Your task to perform on an android device: Open calendar and show me the fourth week of next month Image 0: 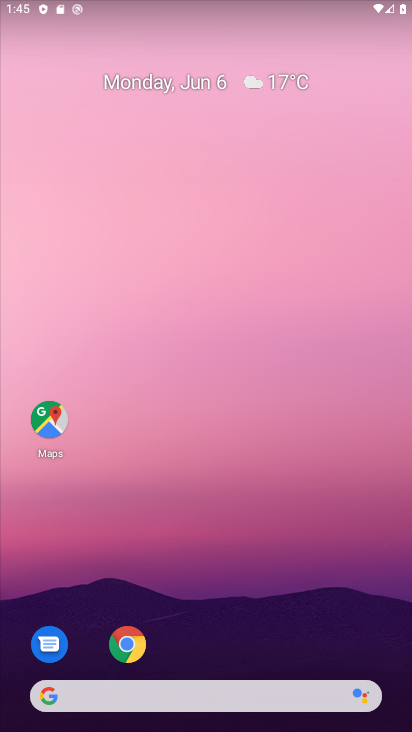
Step 0: drag from (150, 648) to (86, 37)
Your task to perform on an android device: Open calendar and show me the fourth week of next month Image 1: 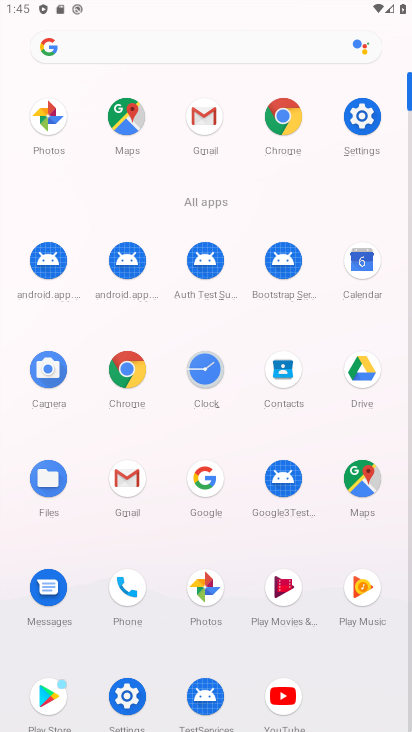
Step 1: click (361, 266)
Your task to perform on an android device: Open calendar and show me the fourth week of next month Image 2: 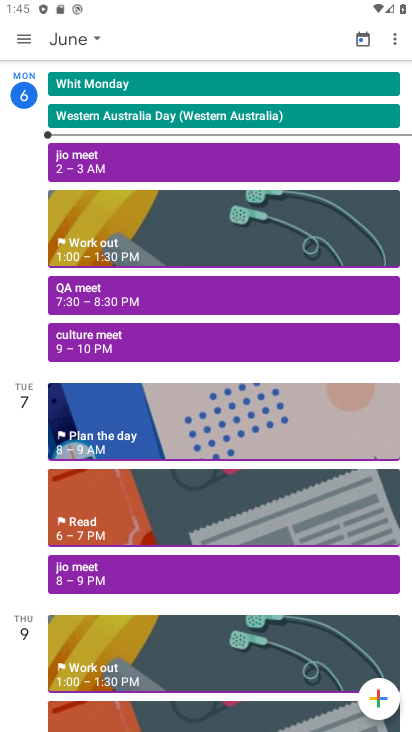
Step 2: click (87, 42)
Your task to perform on an android device: Open calendar and show me the fourth week of next month Image 3: 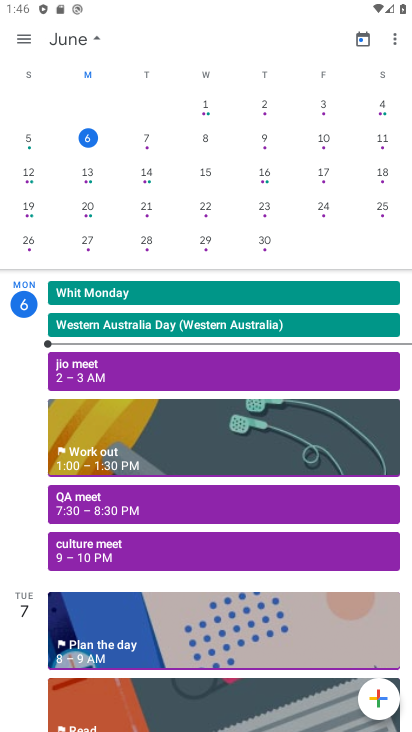
Step 3: drag from (386, 236) to (9, 224)
Your task to perform on an android device: Open calendar and show me the fourth week of next month Image 4: 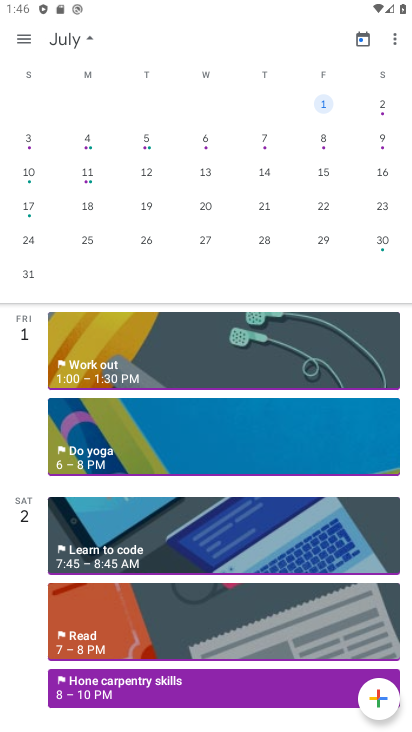
Step 4: click (85, 38)
Your task to perform on an android device: Open calendar and show me the fourth week of next month Image 5: 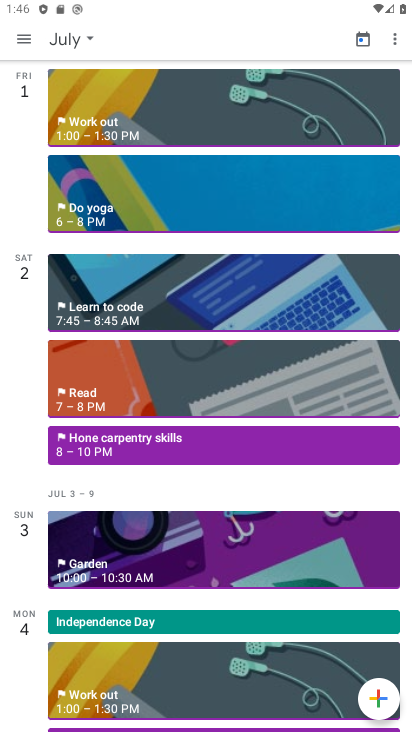
Step 5: click (17, 39)
Your task to perform on an android device: Open calendar and show me the fourth week of next month Image 6: 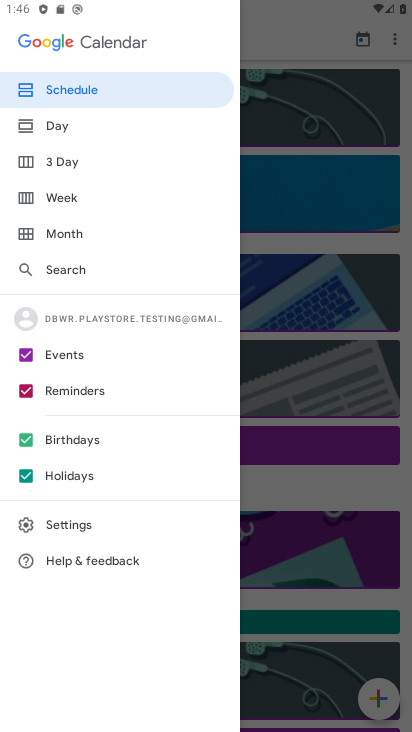
Step 6: click (65, 199)
Your task to perform on an android device: Open calendar and show me the fourth week of next month Image 7: 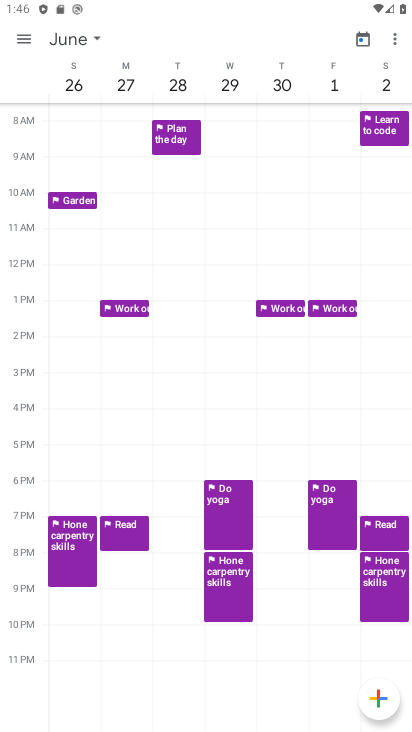
Step 7: task complete